Your task to perform on an android device: toggle location history Image 0: 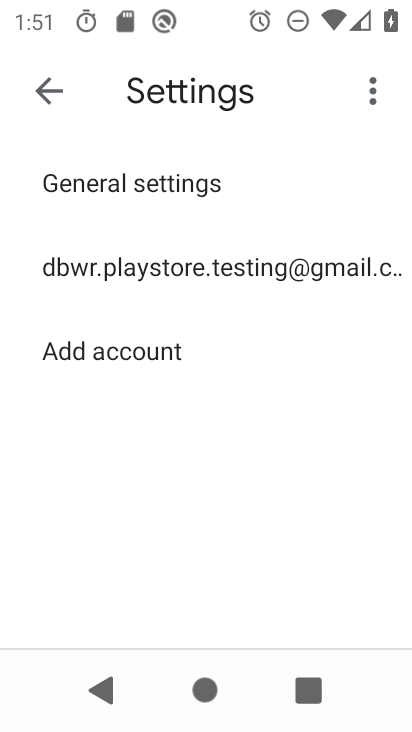
Step 0: press home button
Your task to perform on an android device: toggle location history Image 1: 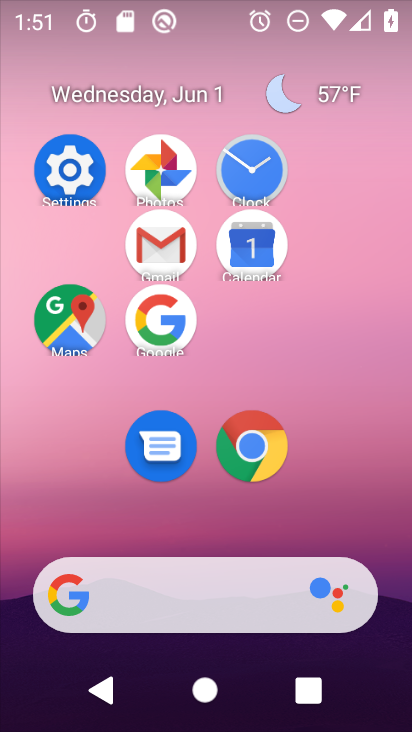
Step 1: click (72, 161)
Your task to perform on an android device: toggle location history Image 2: 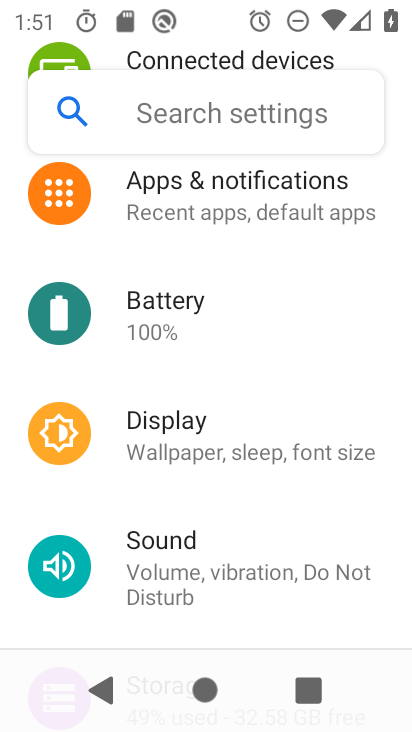
Step 2: drag from (245, 581) to (247, 231)
Your task to perform on an android device: toggle location history Image 3: 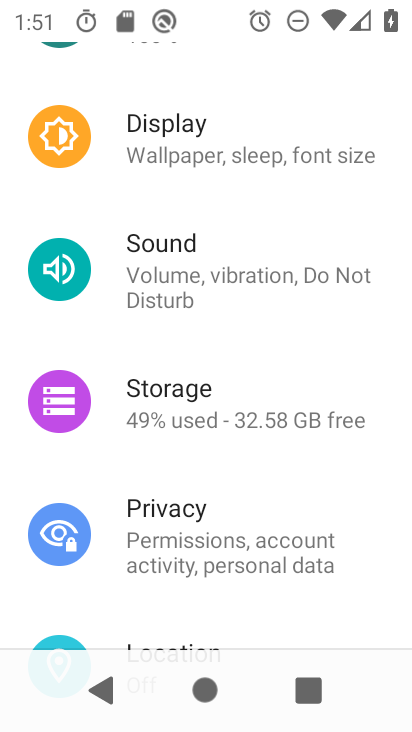
Step 3: drag from (244, 541) to (257, 212)
Your task to perform on an android device: toggle location history Image 4: 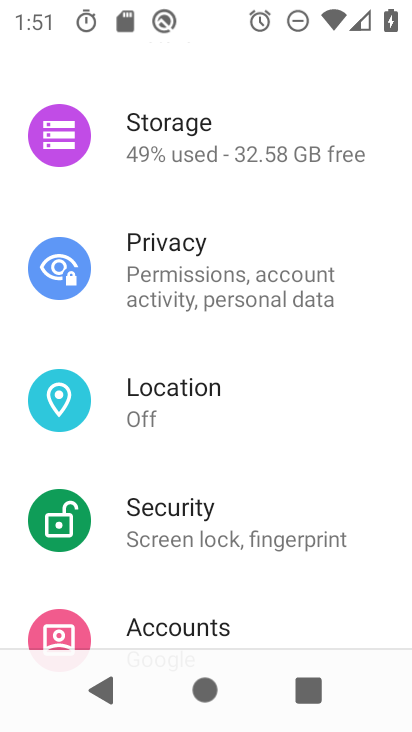
Step 4: click (229, 398)
Your task to perform on an android device: toggle location history Image 5: 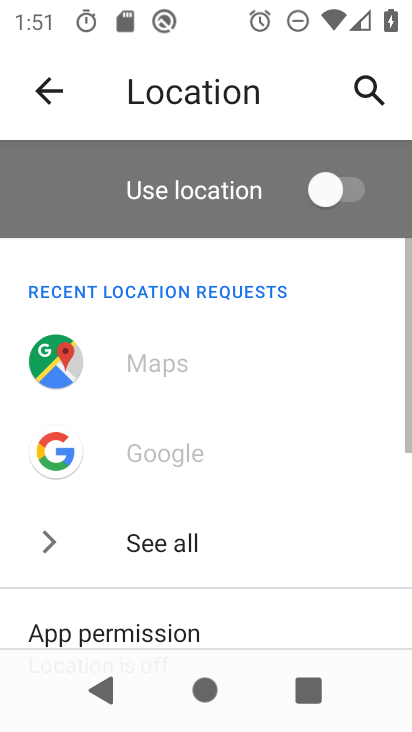
Step 5: drag from (260, 579) to (247, 190)
Your task to perform on an android device: toggle location history Image 6: 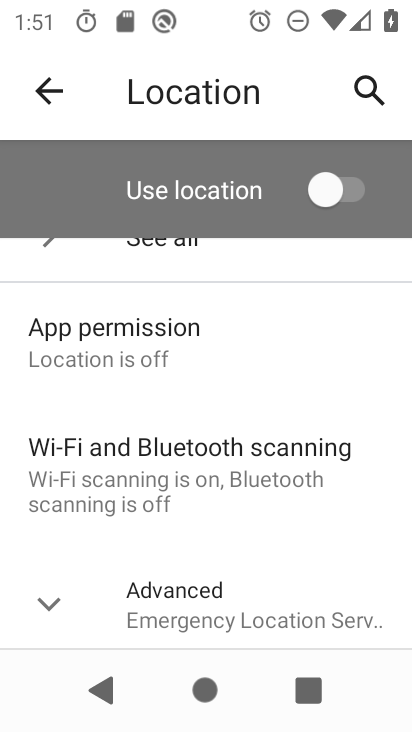
Step 6: drag from (231, 544) to (234, 218)
Your task to perform on an android device: toggle location history Image 7: 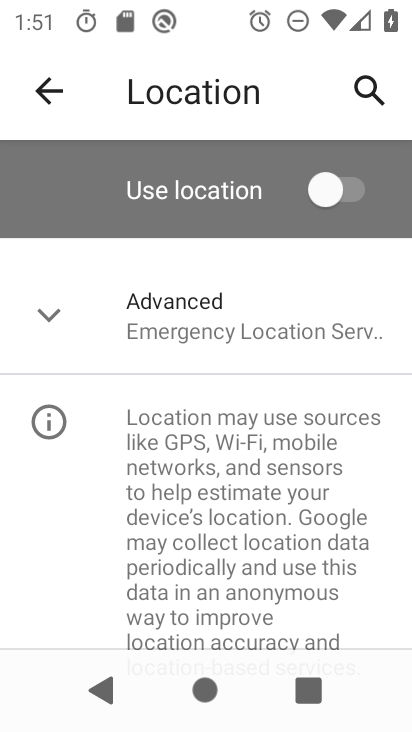
Step 7: click (196, 331)
Your task to perform on an android device: toggle location history Image 8: 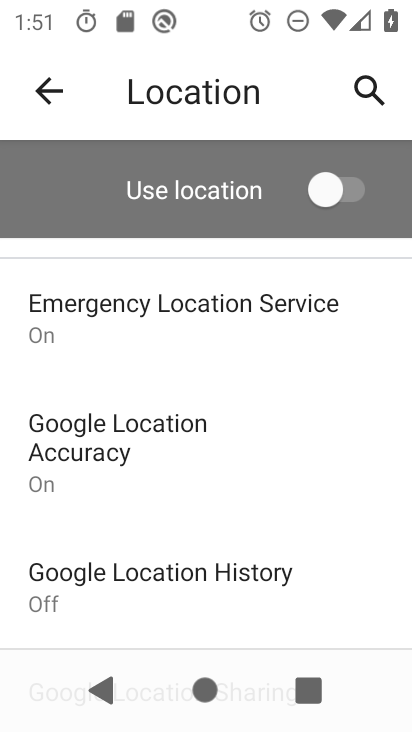
Step 8: click (246, 586)
Your task to perform on an android device: toggle location history Image 9: 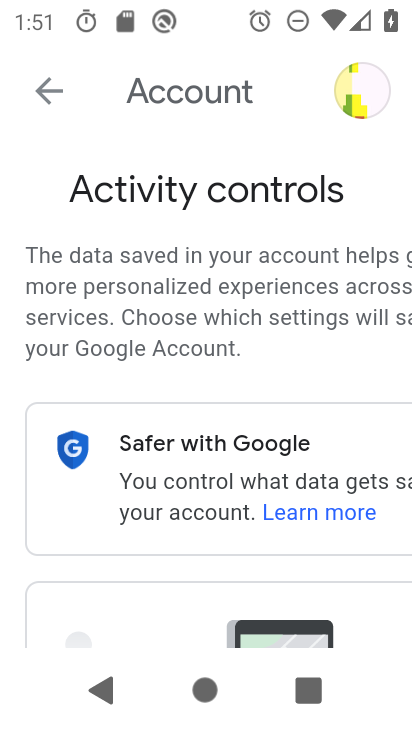
Step 9: drag from (247, 495) to (283, 146)
Your task to perform on an android device: toggle location history Image 10: 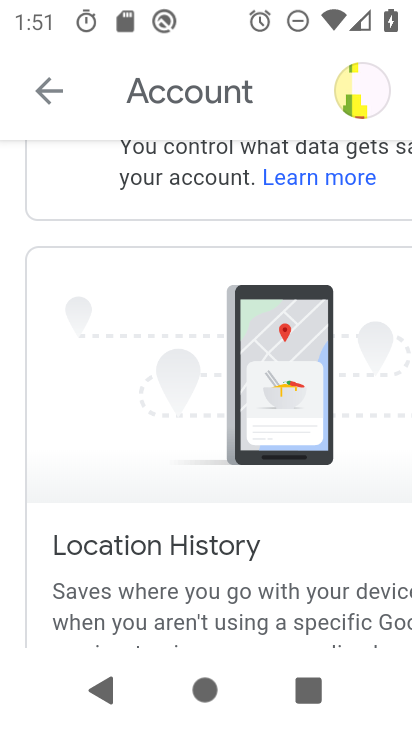
Step 10: drag from (262, 514) to (294, 136)
Your task to perform on an android device: toggle location history Image 11: 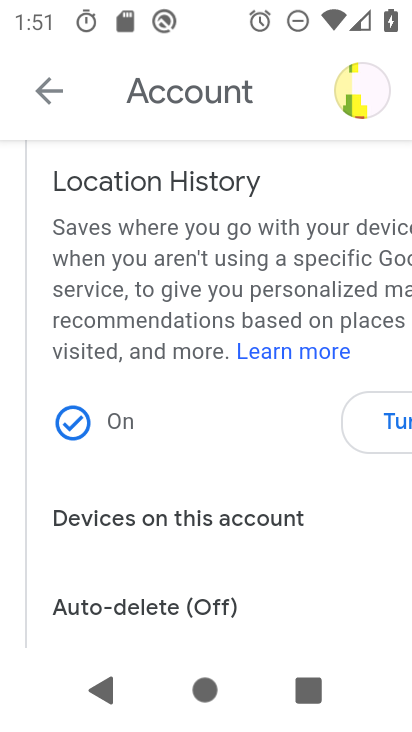
Step 11: click (379, 420)
Your task to perform on an android device: toggle location history Image 12: 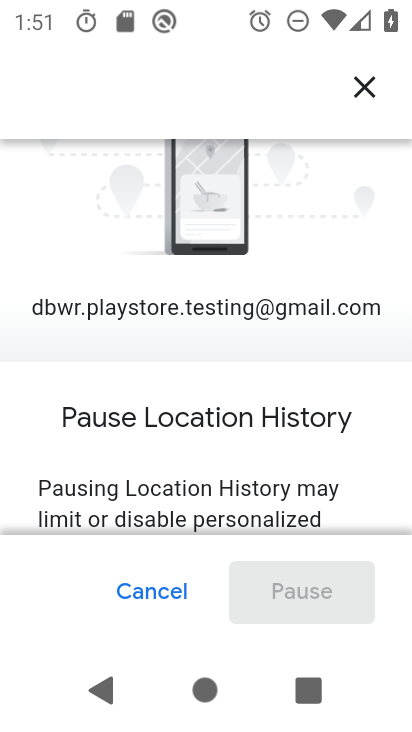
Step 12: drag from (315, 521) to (312, 128)
Your task to perform on an android device: toggle location history Image 13: 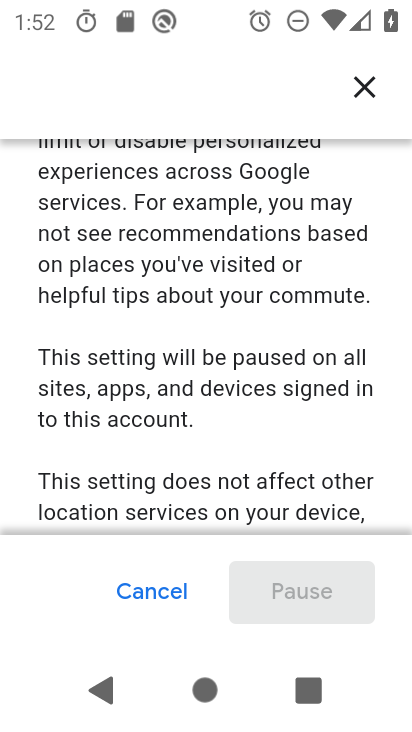
Step 13: drag from (320, 435) to (317, 59)
Your task to perform on an android device: toggle location history Image 14: 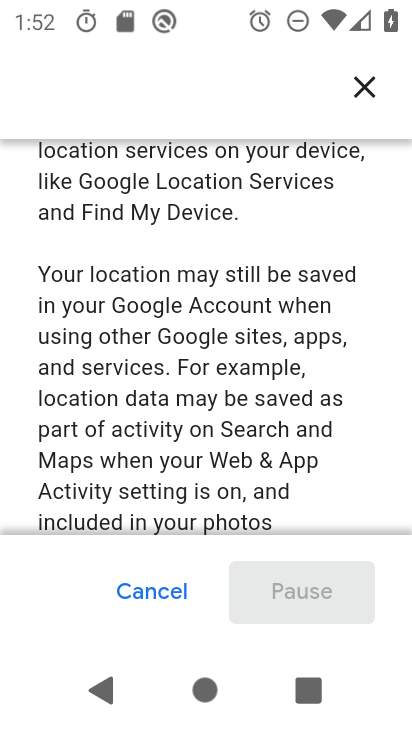
Step 14: drag from (336, 358) to (320, 56)
Your task to perform on an android device: toggle location history Image 15: 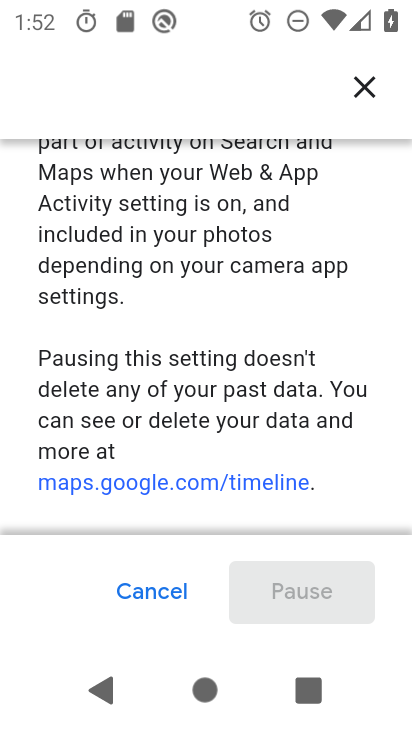
Step 15: drag from (293, 393) to (307, 62)
Your task to perform on an android device: toggle location history Image 16: 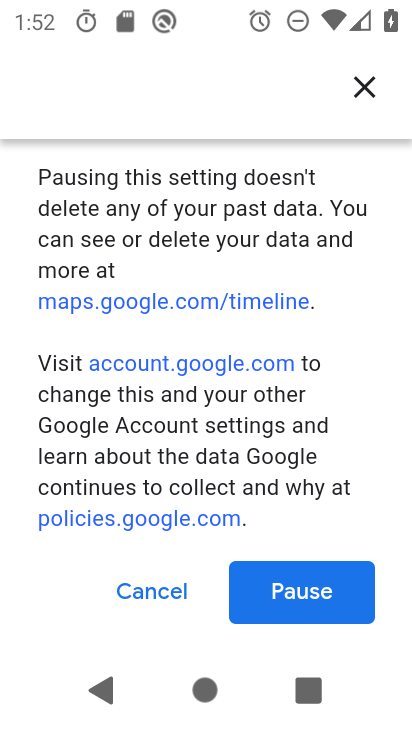
Step 16: click (260, 582)
Your task to perform on an android device: toggle location history Image 17: 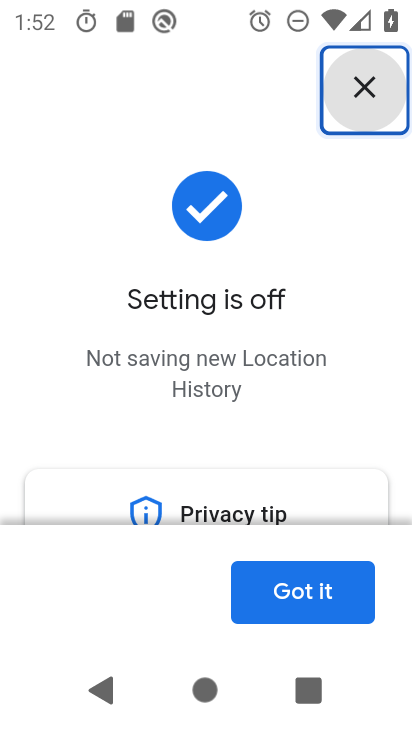
Step 17: click (339, 591)
Your task to perform on an android device: toggle location history Image 18: 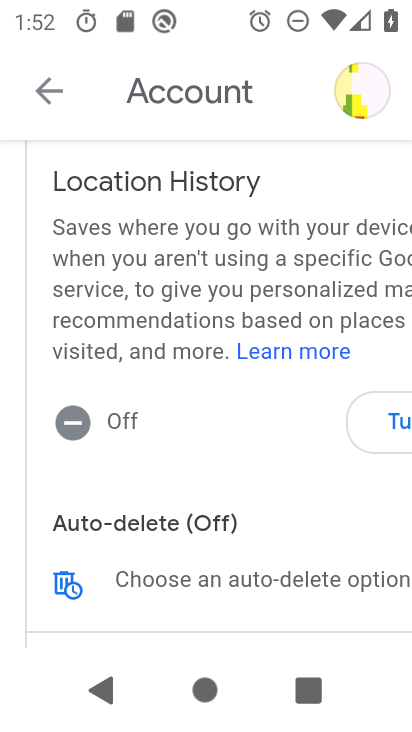
Step 18: task complete